Your task to perform on an android device: change the clock display to digital Image 0: 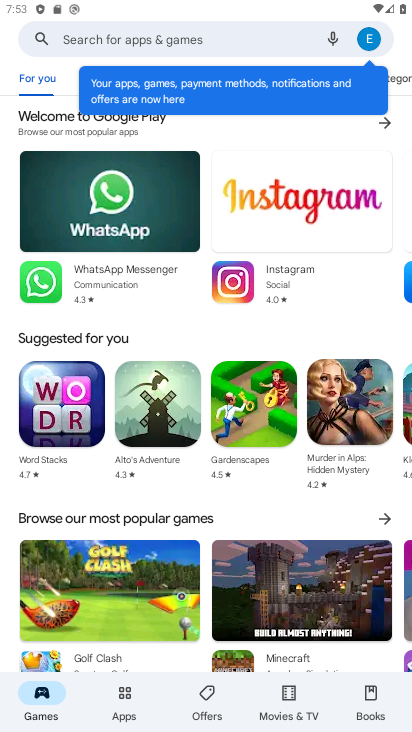
Step 0: press home button
Your task to perform on an android device: change the clock display to digital Image 1: 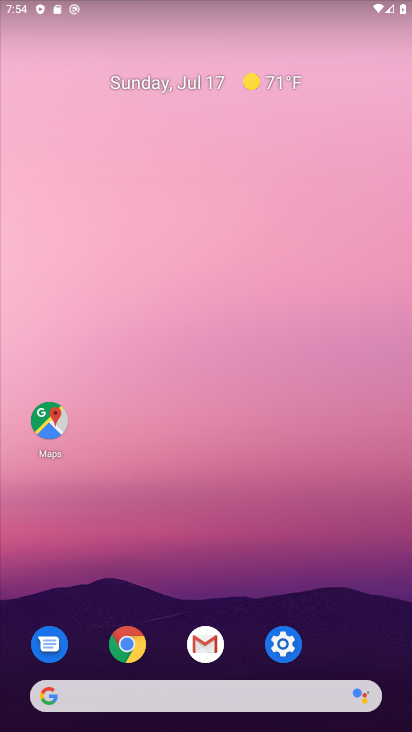
Step 1: drag from (251, 710) to (362, 136)
Your task to perform on an android device: change the clock display to digital Image 2: 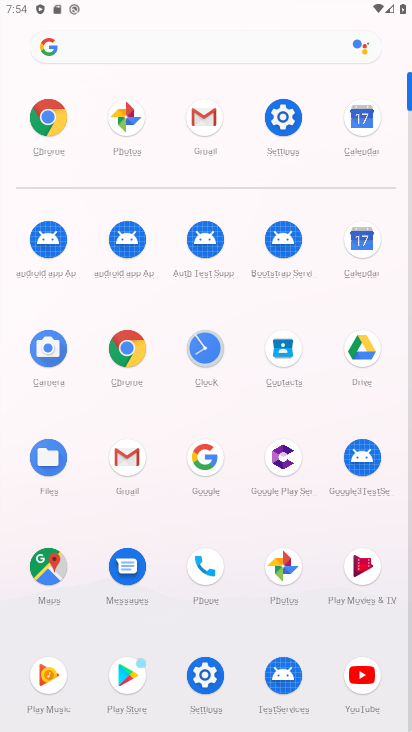
Step 2: click (195, 341)
Your task to perform on an android device: change the clock display to digital Image 3: 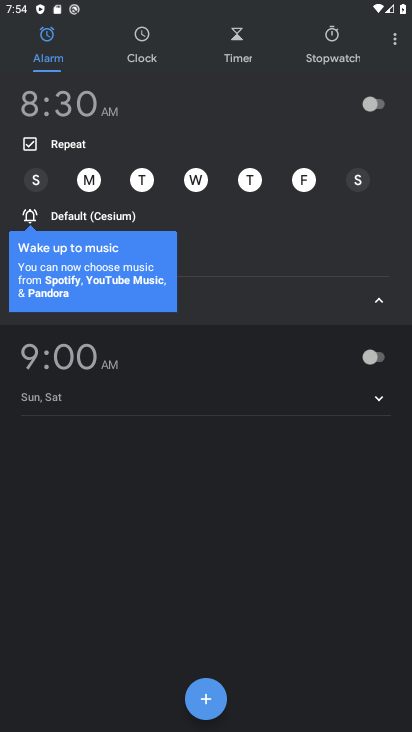
Step 3: click (397, 46)
Your task to perform on an android device: change the clock display to digital Image 4: 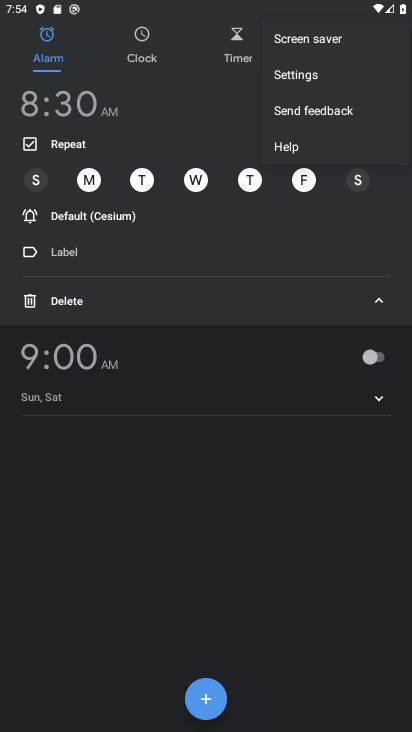
Step 4: click (296, 79)
Your task to perform on an android device: change the clock display to digital Image 5: 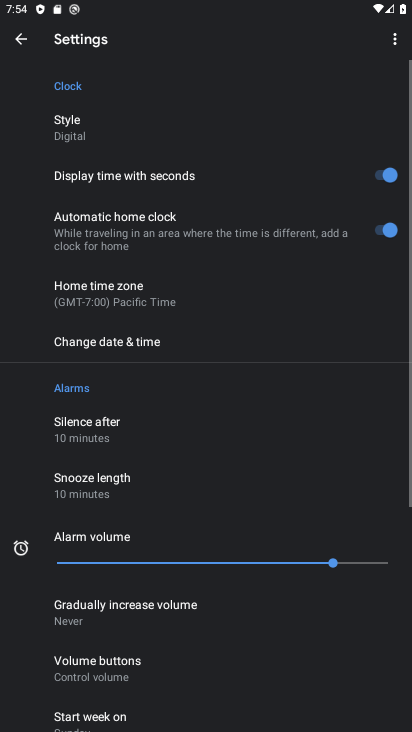
Step 5: click (133, 125)
Your task to perform on an android device: change the clock display to digital Image 6: 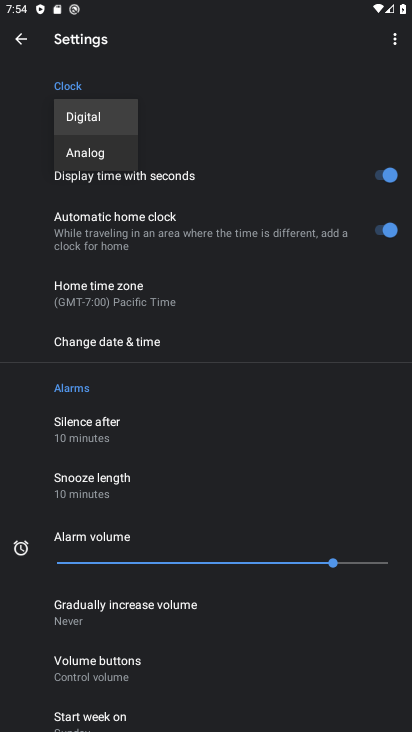
Step 6: click (79, 160)
Your task to perform on an android device: change the clock display to digital Image 7: 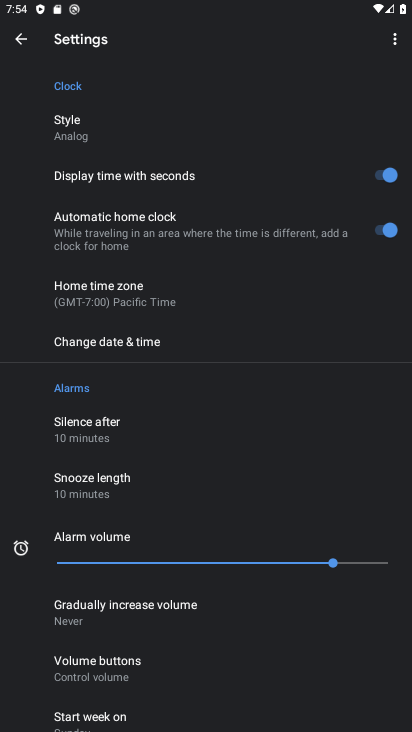
Step 7: task complete